Your task to perform on an android device: search for 2021 honda civic Image 0: 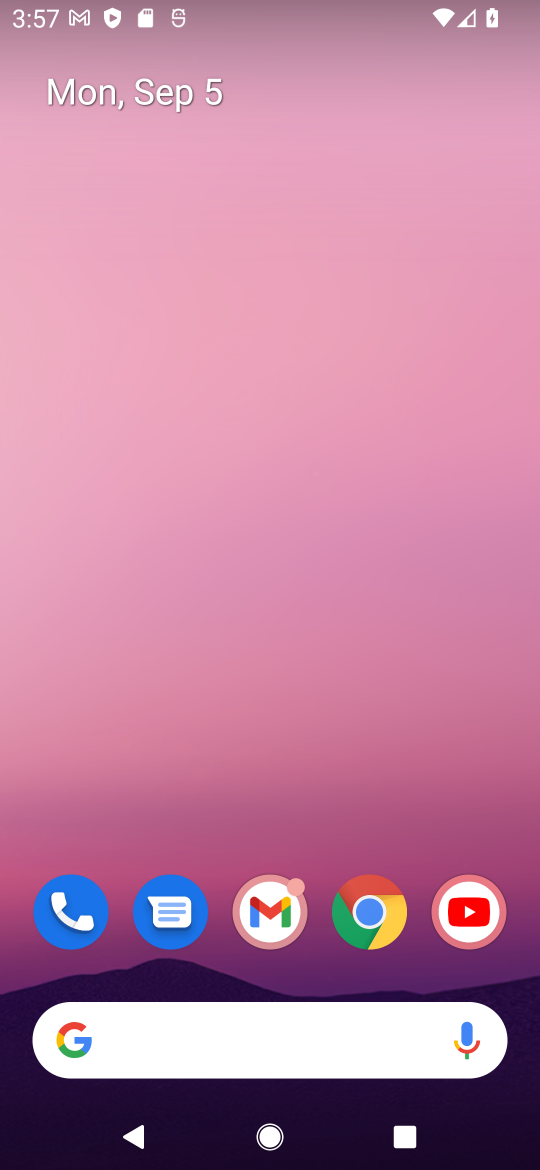
Step 0: click (409, 911)
Your task to perform on an android device: search for 2021 honda civic Image 1: 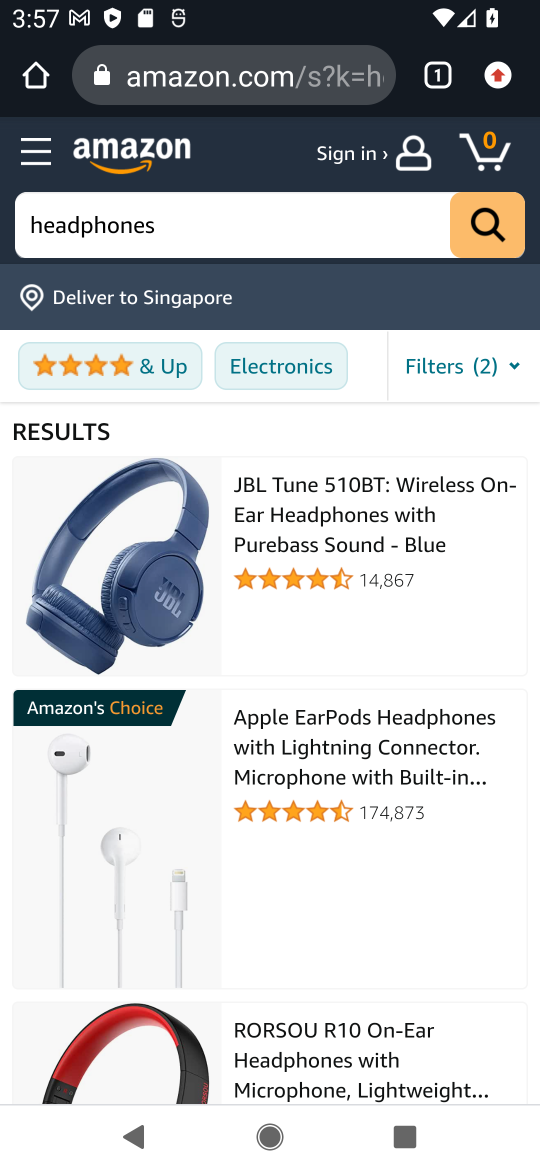
Step 1: click (288, 65)
Your task to perform on an android device: search for 2021 honda civic Image 2: 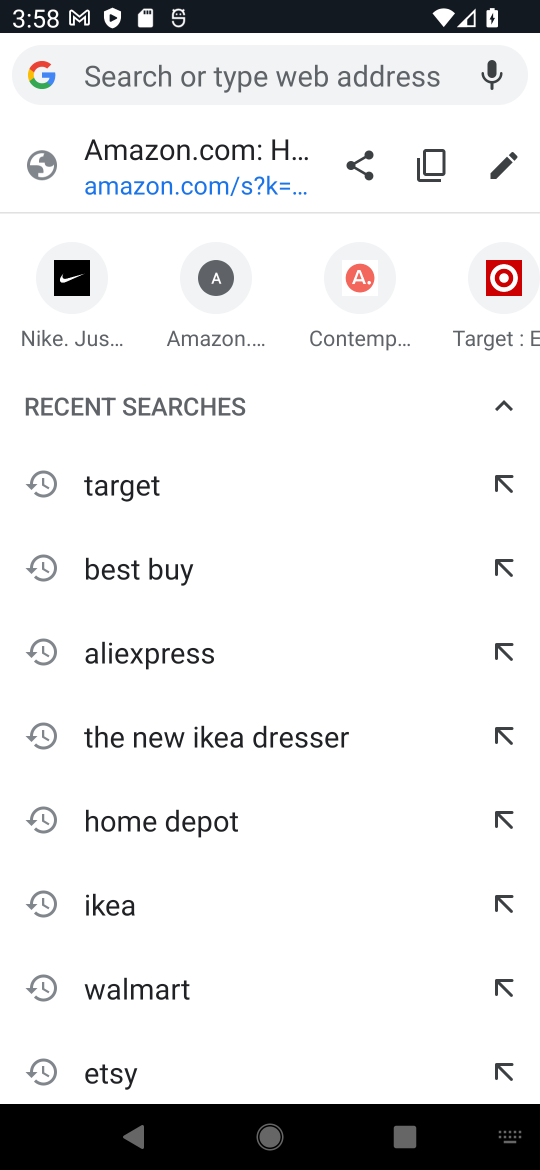
Step 2: type "2021 honda civic"
Your task to perform on an android device: search for 2021 honda civic Image 3: 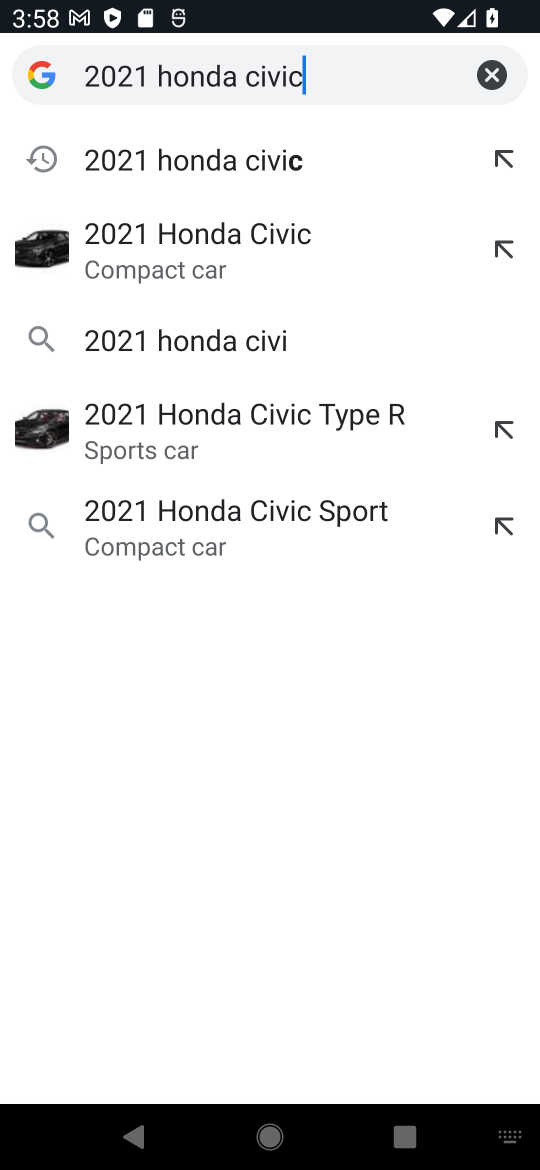
Step 3: type ""
Your task to perform on an android device: search for 2021 honda civic Image 4: 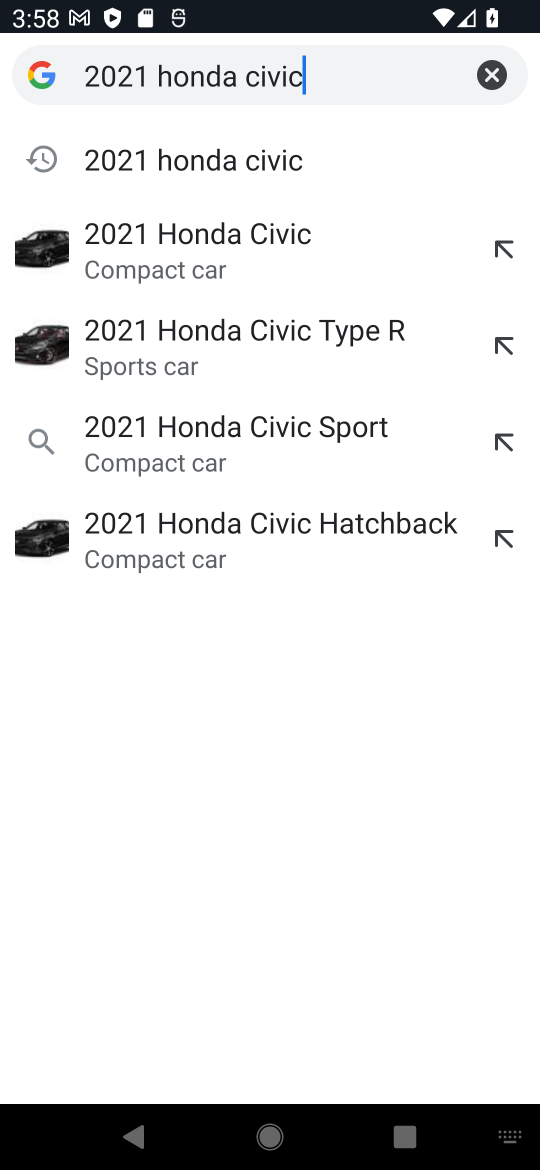
Step 4: press enter
Your task to perform on an android device: search for 2021 honda civic Image 5: 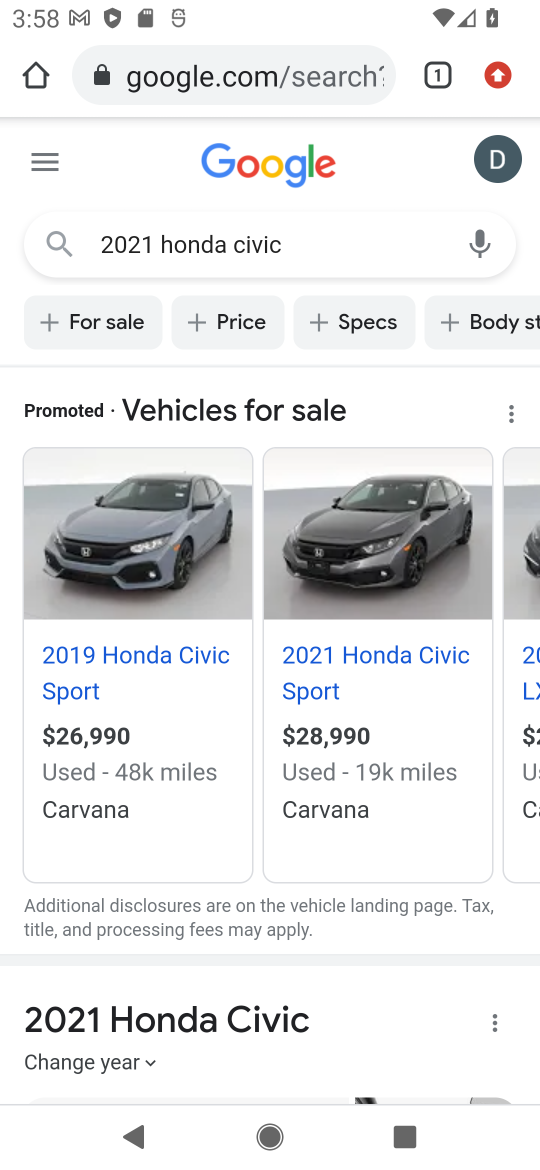
Step 5: click (309, 818)
Your task to perform on an android device: search for 2021 honda civic Image 6: 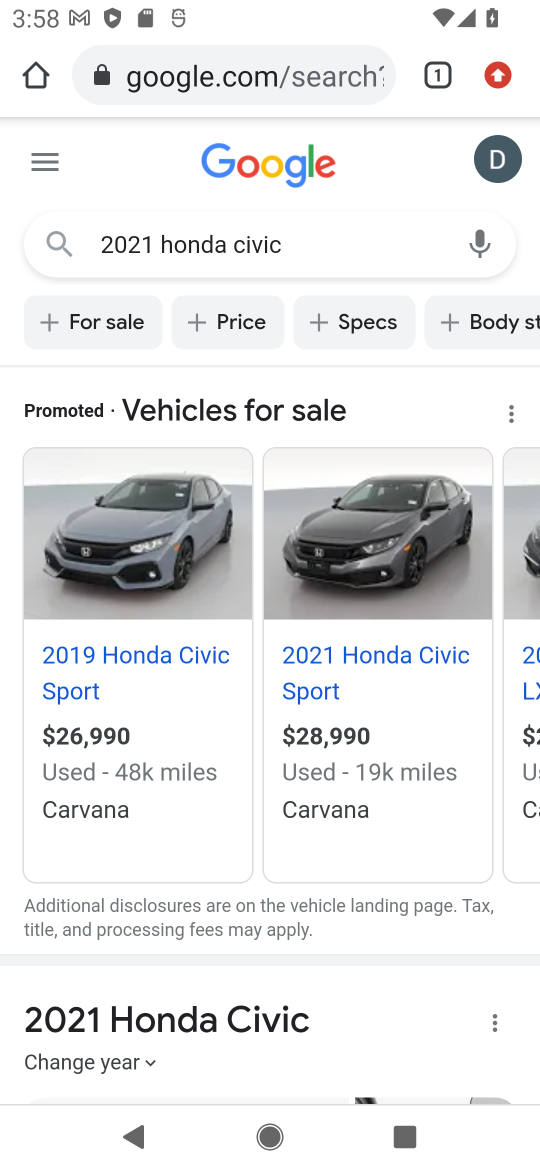
Step 6: drag from (295, 794) to (227, 360)
Your task to perform on an android device: search for 2021 honda civic Image 7: 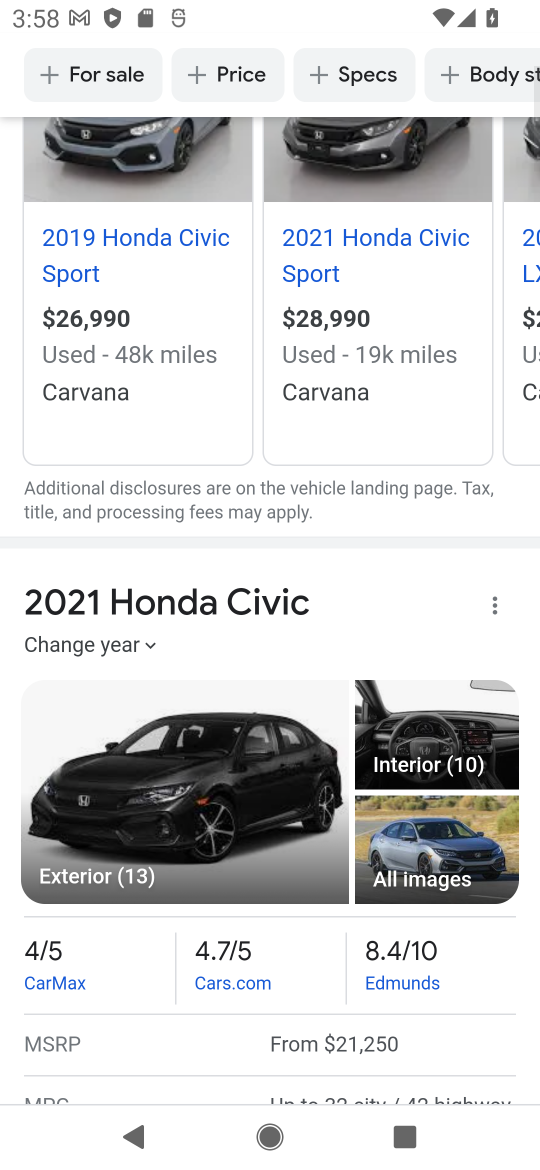
Step 7: drag from (387, 533) to (393, 288)
Your task to perform on an android device: search for 2021 honda civic Image 8: 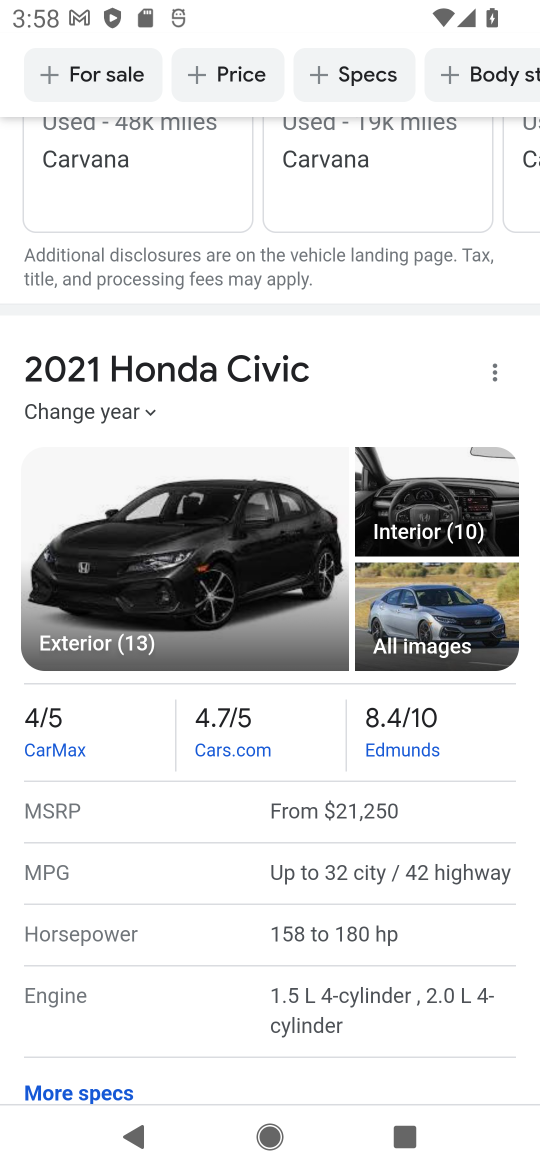
Step 8: click (304, 790)
Your task to perform on an android device: search for 2021 honda civic Image 9: 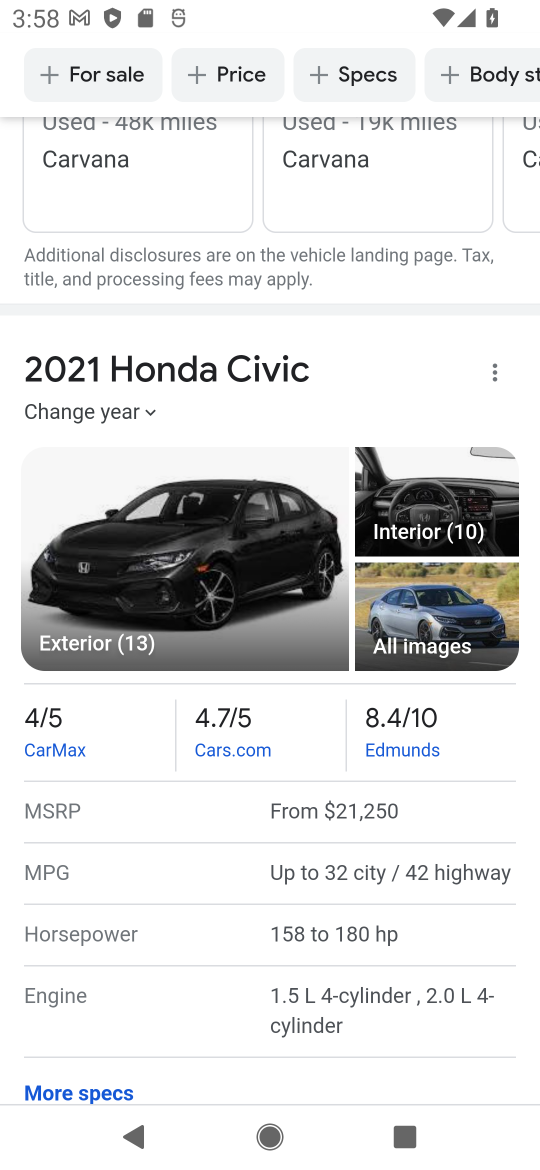
Step 9: task complete